Your task to perform on an android device: turn on the 12-hour format for clock Image 0: 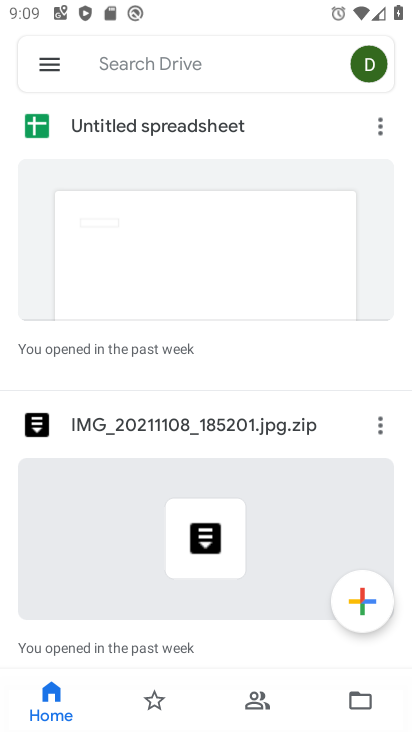
Step 0: press home button
Your task to perform on an android device: turn on the 12-hour format for clock Image 1: 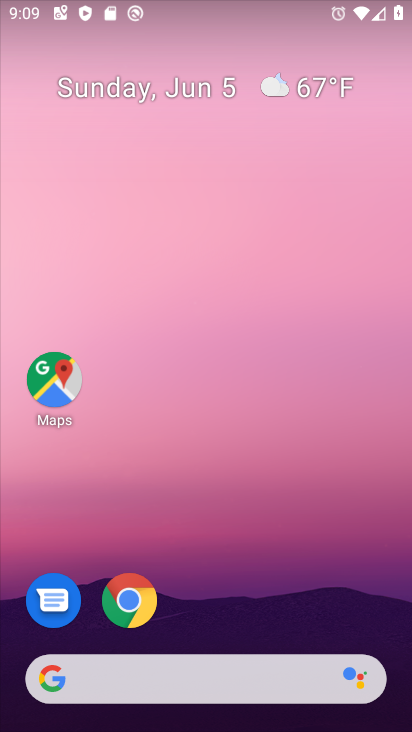
Step 1: drag from (402, 634) to (298, 77)
Your task to perform on an android device: turn on the 12-hour format for clock Image 2: 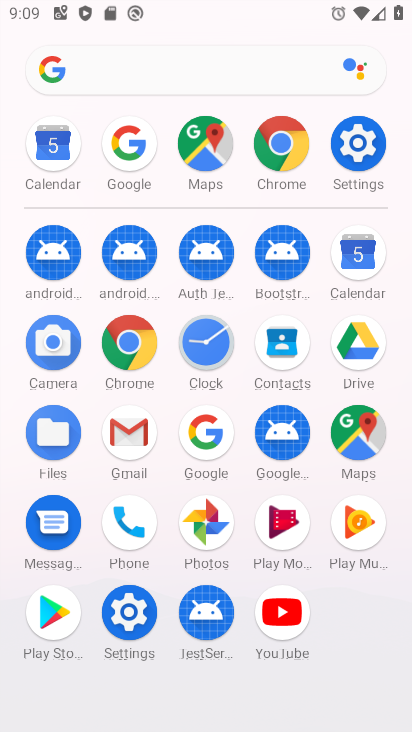
Step 2: click (214, 354)
Your task to perform on an android device: turn on the 12-hour format for clock Image 3: 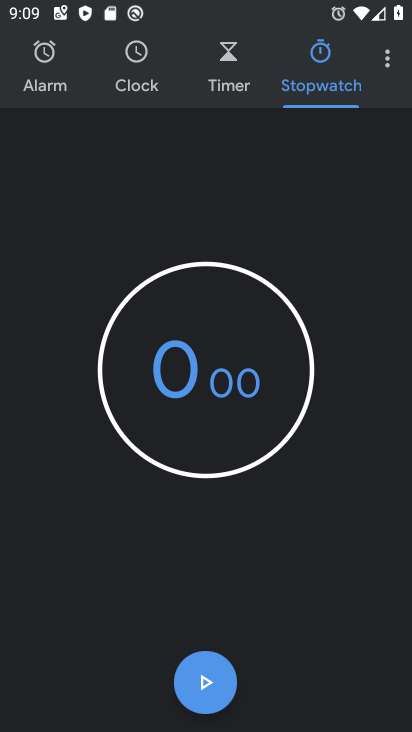
Step 3: click (396, 66)
Your task to perform on an android device: turn on the 12-hour format for clock Image 4: 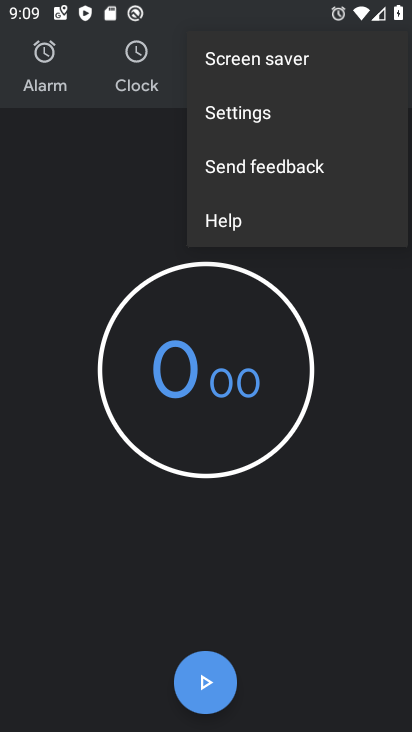
Step 4: click (239, 114)
Your task to perform on an android device: turn on the 12-hour format for clock Image 5: 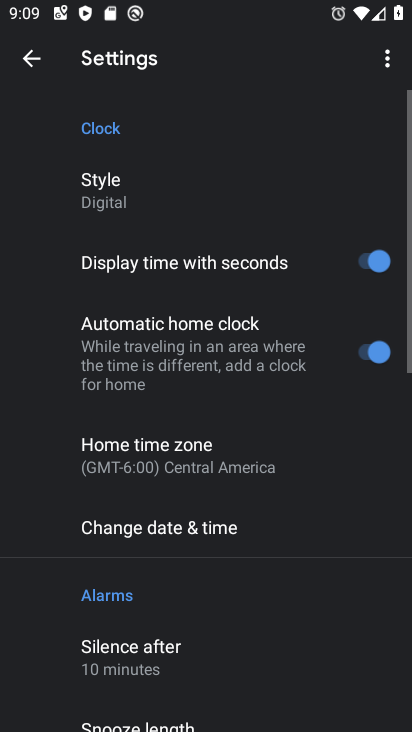
Step 5: click (230, 523)
Your task to perform on an android device: turn on the 12-hour format for clock Image 6: 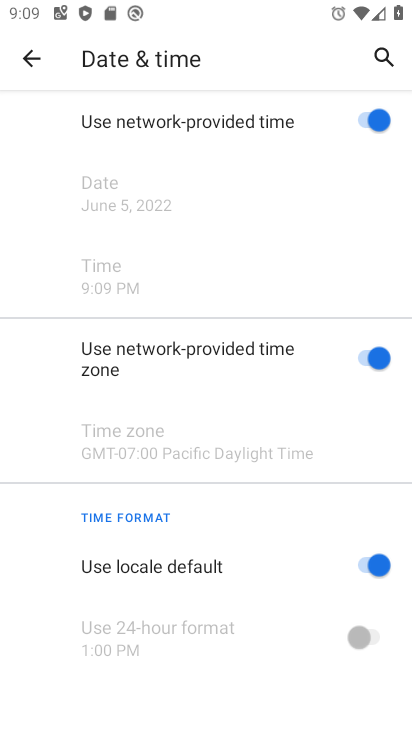
Step 6: task complete